Your task to perform on an android device: change notification settings in the gmail app Image 0: 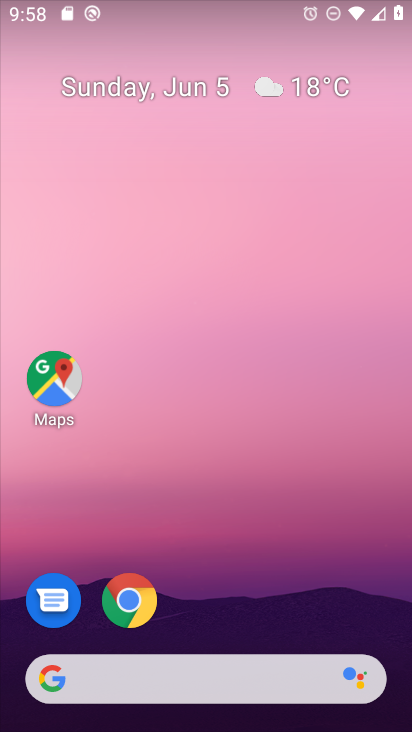
Step 0: drag from (206, 553) to (129, 62)
Your task to perform on an android device: change notification settings in the gmail app Image 1: 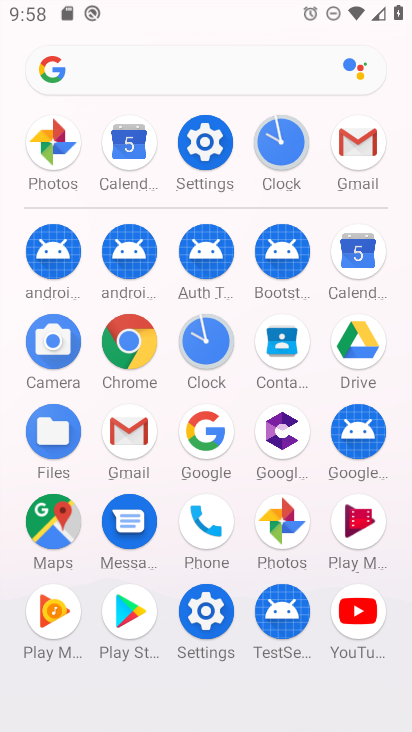
Step 1: click (338, 132)
Your task to perform on an android device: change notification settings in the gmail app Image 2: 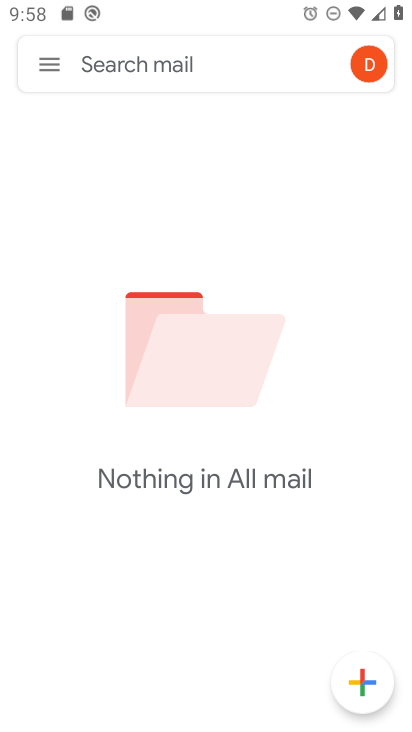
Step 2: click (55, 69)
Your task to perform on an android device: change notification settings in the gmail app Image 3: 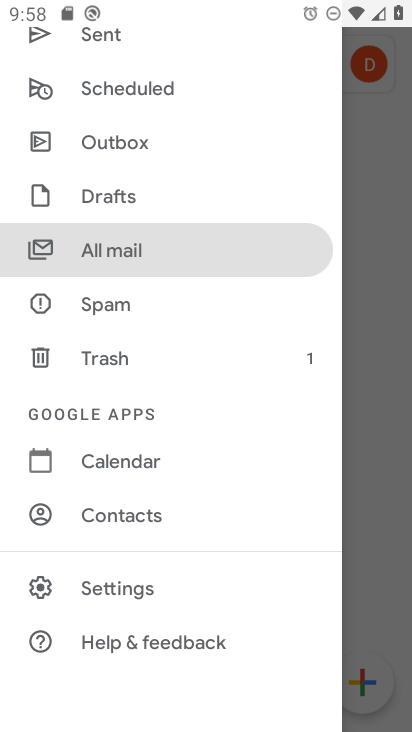
Step 3: drag from (200, 573) to (176, 364)
Your task to perform on an android device: change notification settings in the gmail app Image 4: 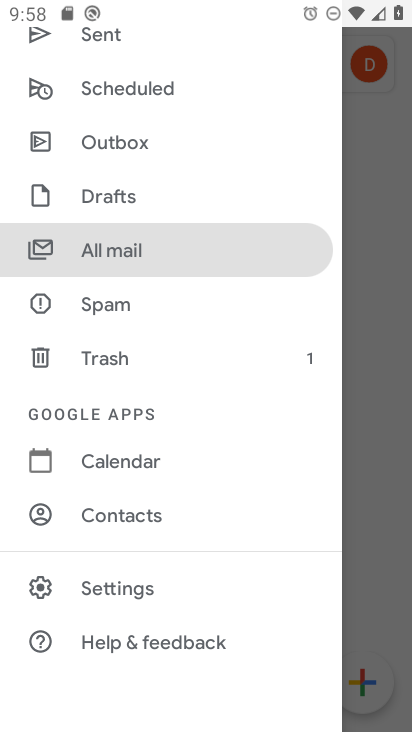
Step 4: click (173, 582)
Your task to perform on an android device: change notification settings in the gmail app Image 5: 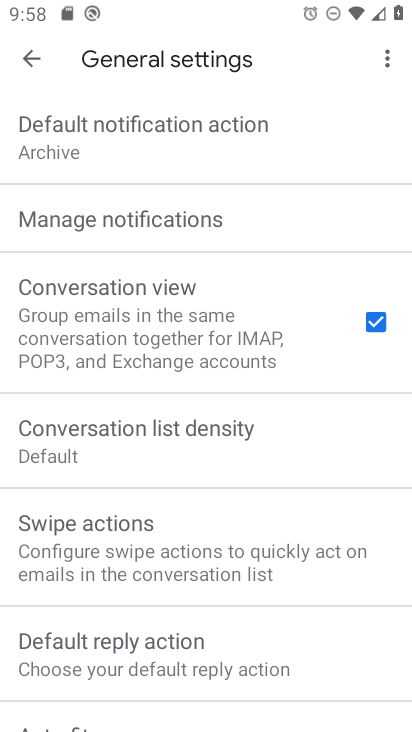
Step 5: click (234, 216)
Your task to perform on an android device: change notification settings in the gmail app Image 6: 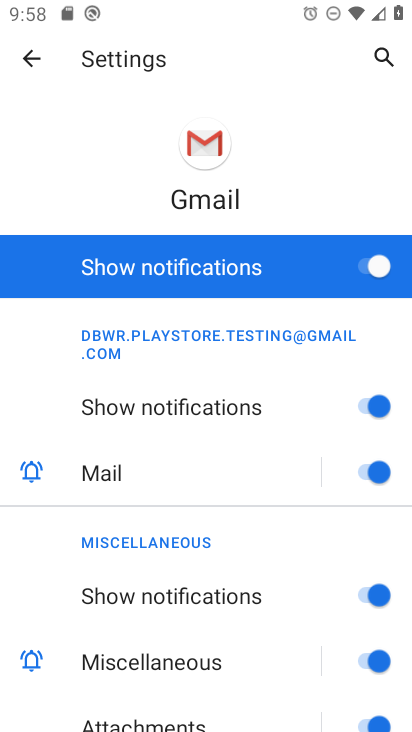
Step 6: click (370, 272)
Your task to perform on an android device: change notification settings in the gmail app Image 7: 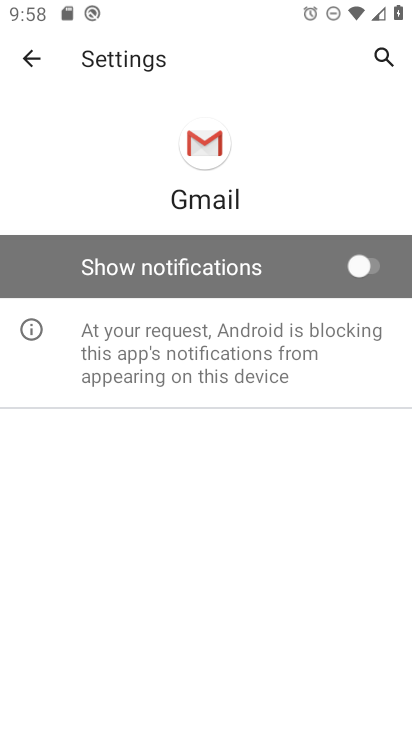
Step 7: task complete